Your task to perform on an android device: Open Google Chrome Image 0: 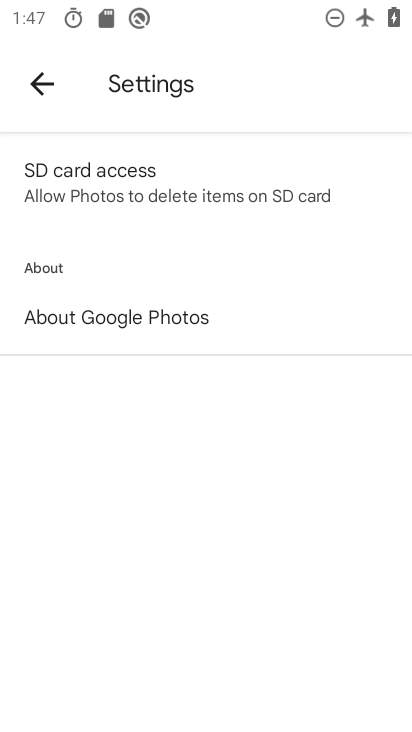
Step 0: press home button
Your task to perform on an android device: Open Google Chrome Image 1: 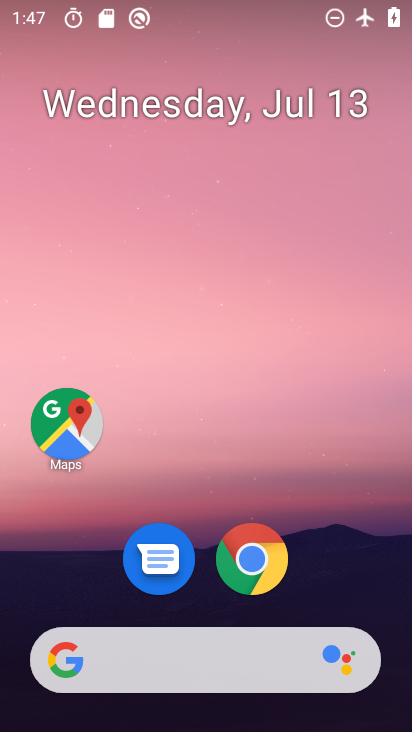
Step 1: drag from (280, 606) to (400, 239)
Your task to perform on an android device: Open Google Chrome Image 2: 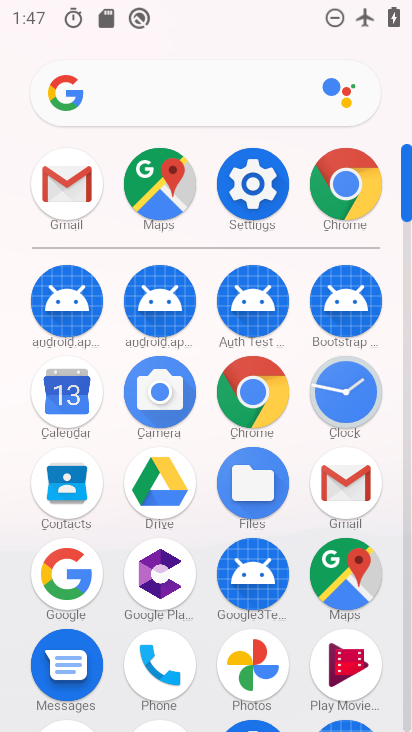
Step 2: drag from (246, 515) to (263, 442)
Your task to perform on an android device: Open Google Chrome Image 3: 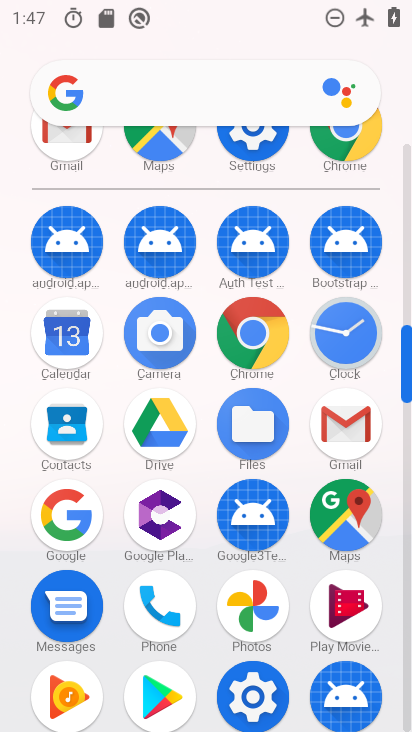
Step 3: click (268, 355)
Your task to perform on an android device: Open Google Chrome Image 4: 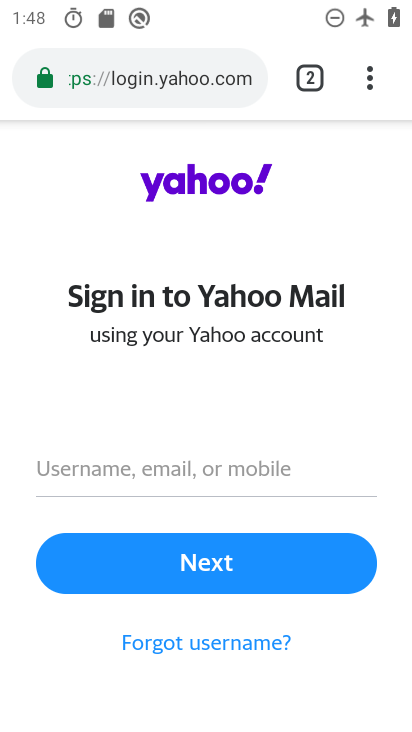
Step 4: task complete